Your task to perform on an android device: turn on javascript in the chrome app Image 0: 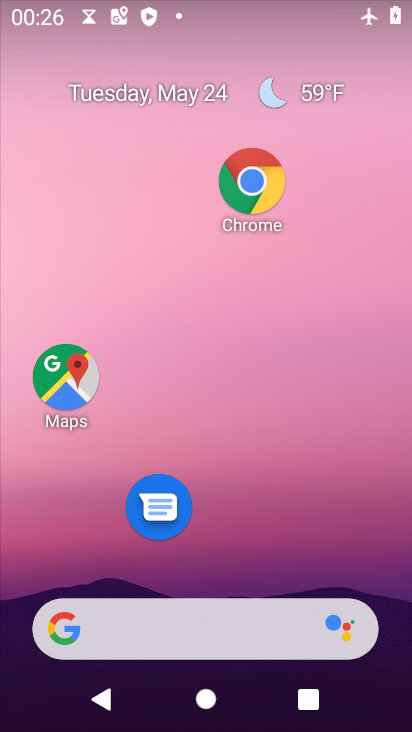
Step 0: drag from (269, 476) to (298, 325)
Your task to perform on an android device: turn on javascript in the chrome app Image 1: 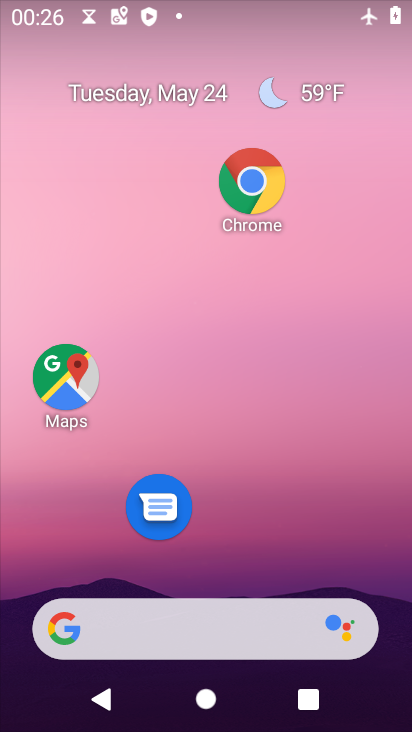
Step 1: drag from (288, 529) to (341, 238)
Your task to perform on an android device: turn on javascript in the chrome app Image 2: 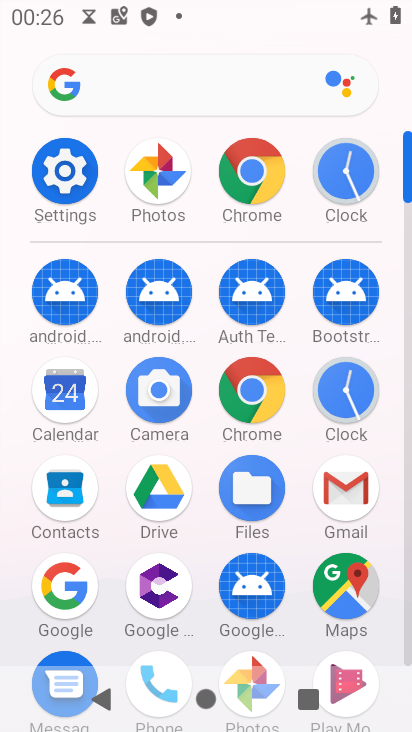
Step 2: click (239, 174)
Your task to perform on an android device: turn on javascript in the chrome app Image 3: 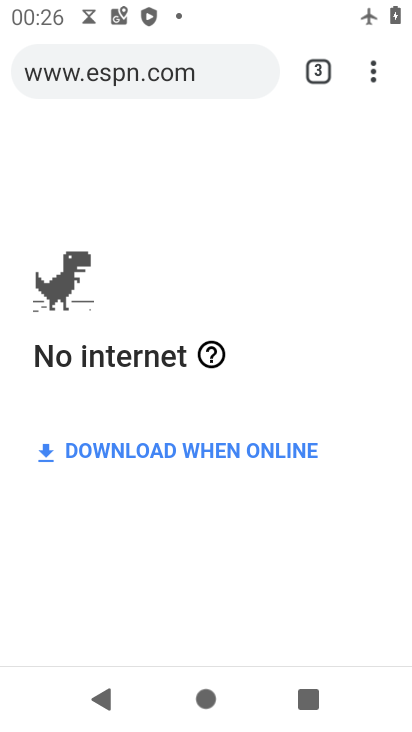
Step 3: click (382, 45)
Your task to perform on an android device: turn on javascript in the chrome app Image 4: 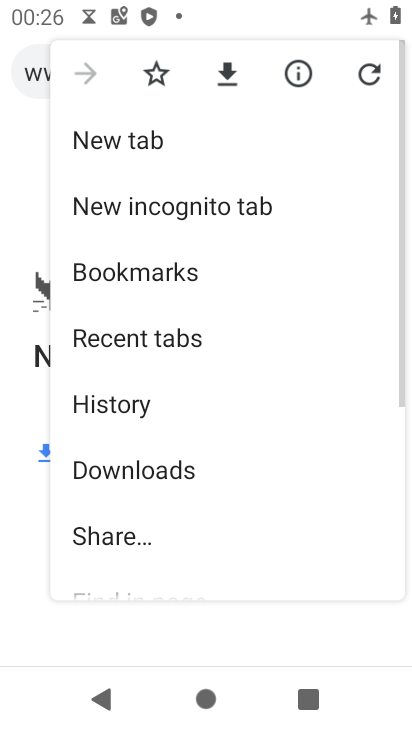
Step 4: drag from (185, 497) to (225, 170)
Your task to perform on an android device: turn on javascript in the chrome app Image 5: 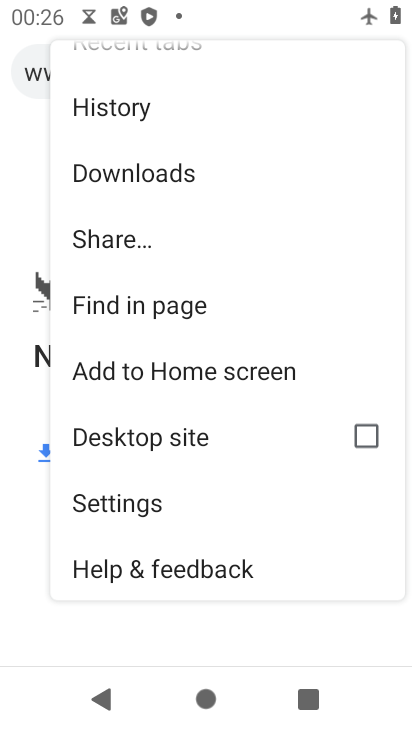
Step 5: click (145, 507)
Your task to perform on an android device: turn on javascript in the chrome app Image 6: 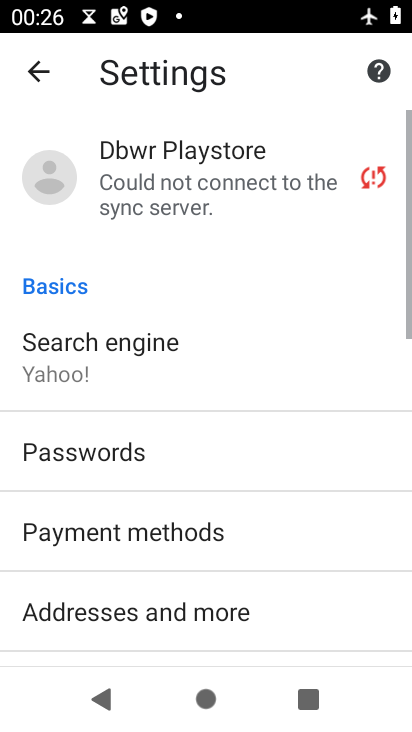
Step 6: drag from (178, 553) to (253, 238)
Your task to perform on an android device: turn on javascript in the chrome app Image 7: 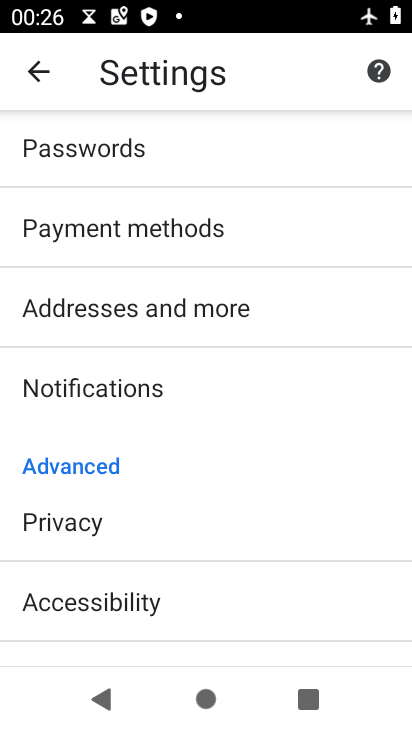
Step 7: drag from (222, 552) to (299, 154)
Your task to perform on an android device: turn on javascript in the chrome app Image 8: 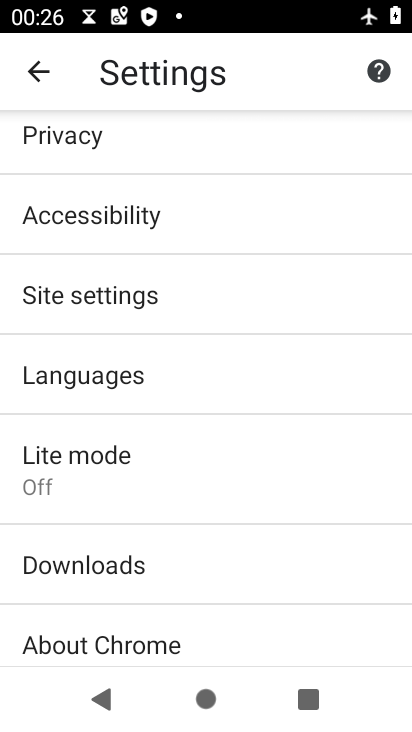
Step 8: click (199, 288)
Your task to perform on an android device: turn on javascript in the chrome app Image 9: 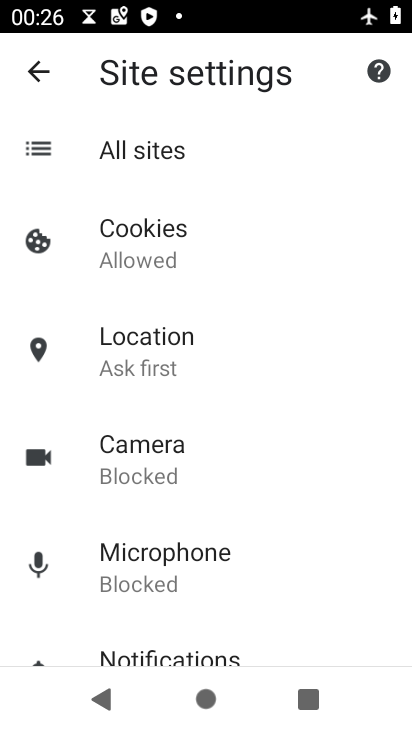
Step 9: drag from (243, 575) to (262, 142)
Your task to perform on an android device: turn on javascript in the chrome app Image 10: 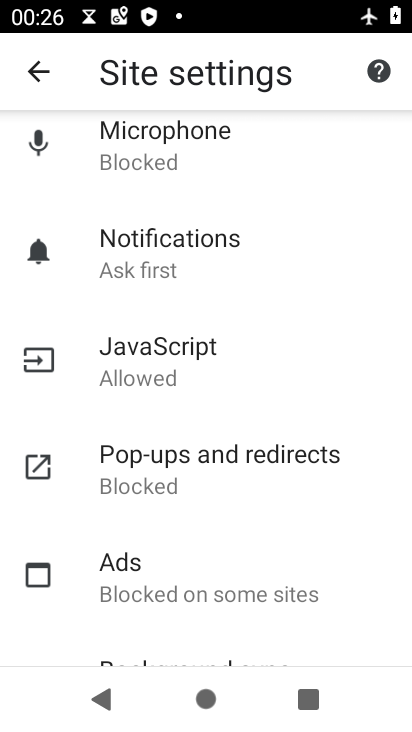
Step 10: click (156, 369)
Your task to perform on an android device: turn on javascript in the chrome app Image 11: 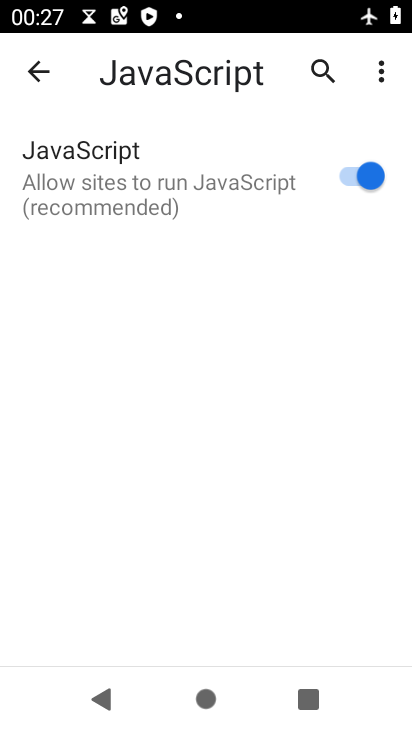
Step 11: task complete